Your task to perform on an android device: snooze an email in the gmail app Image 0: 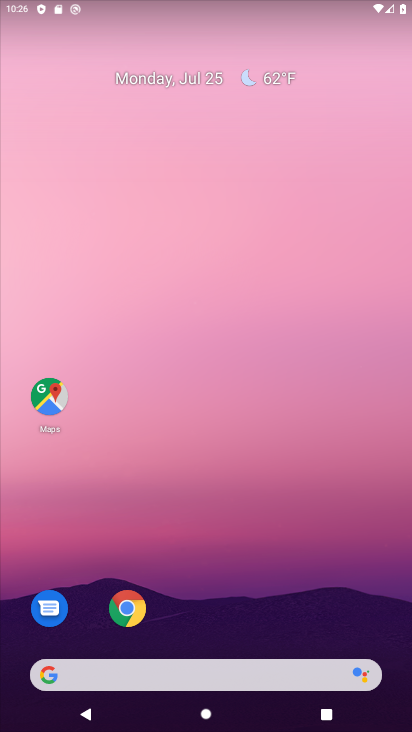
Step 0: drag from (174, 665) to (184, 211)
Your task to perform on an android device: snooze an email in the gmail app Image 1: 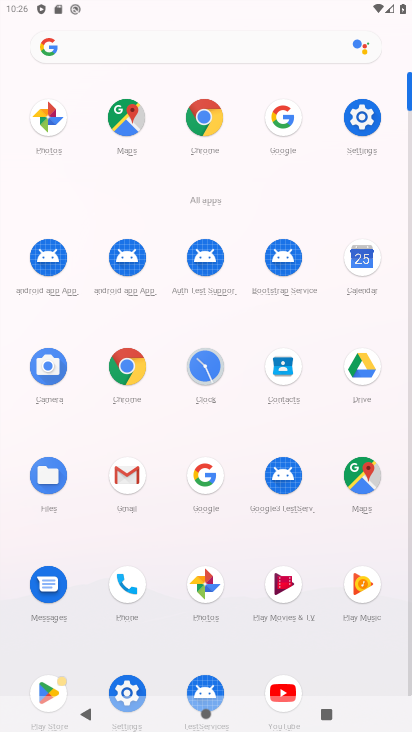
Step 1: click (129, 479)
Your task to perform on an android device: snooze an email in the gmail app Image 2: 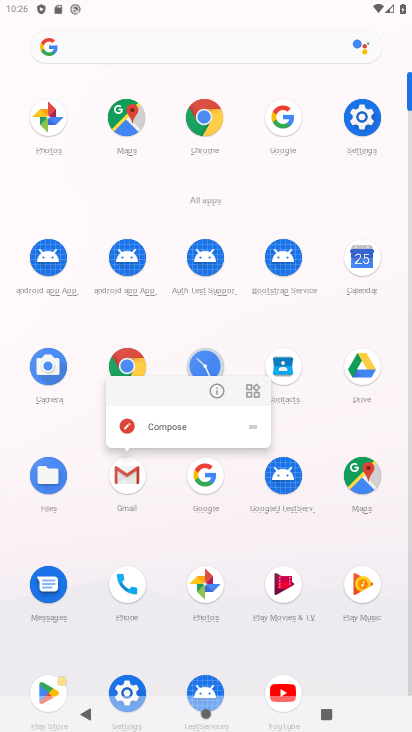
Step 2: click (129, 479)
Your task to perform on an android device: snooze an email in the gmail app Image 3: 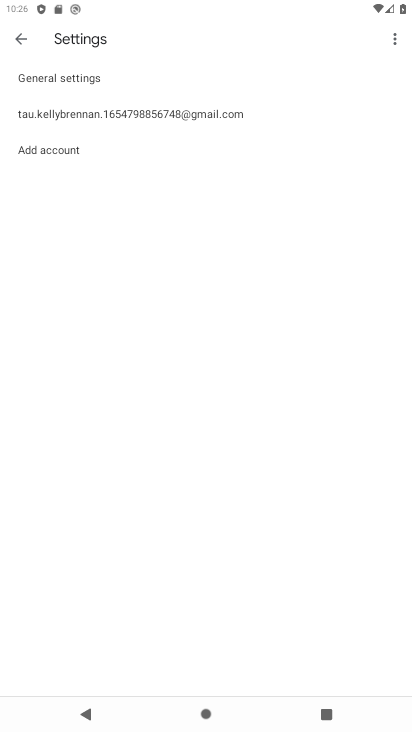
Step 3: click (19, 44)
Your task to perform on an android device: snooze an email in the gmail app Image 4: 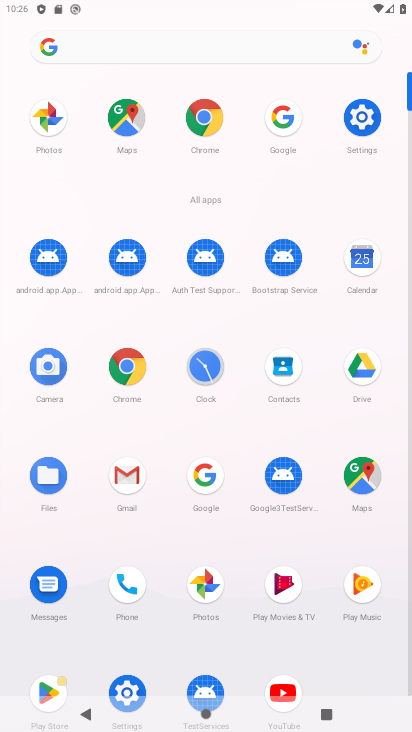
Step 4: click (130, 469)
Your task to perform on an android device: snooze an email in the gmail app Image 5: 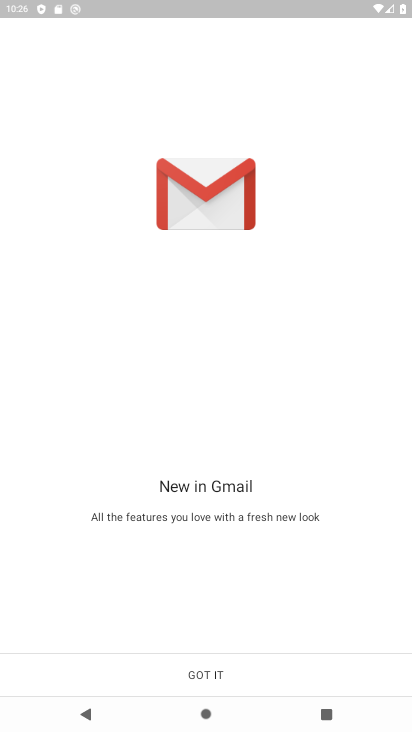
Step 5: click (202, 670)
Your task to perform on an android device: snooze an email in the gmail app Image 6: 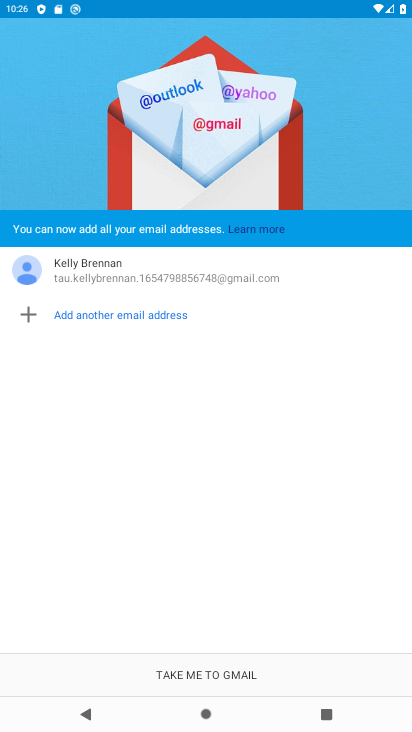
Step 6: click (202, 670)
Your task to perform on an android device: snooze an email in the gmail app Image 7: 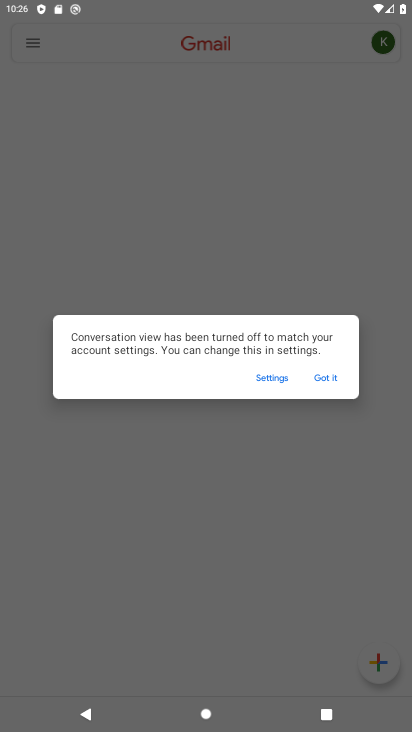
Step 7: click (323, 380)
Your task to perform on an android device: snooze an email in the gmail app Image 8: 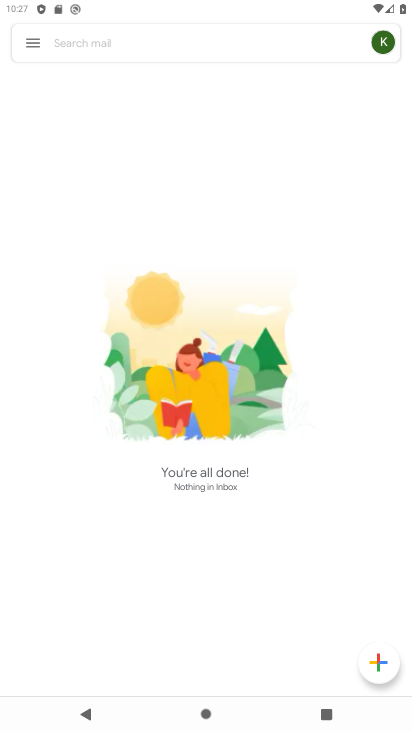
Step 8: click (37, 42)
Your task to perform on an android device: snooze an email in the gmail app Image 9: 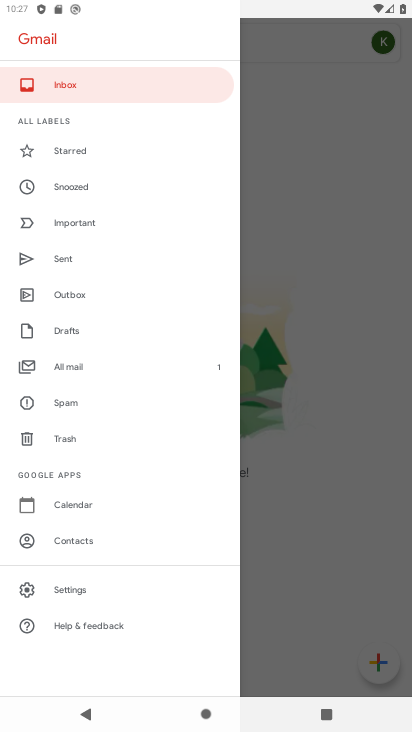
Step 9: click (82, 184)
Your task to perform on an android device: snooze an email in the gmail app Image 10: 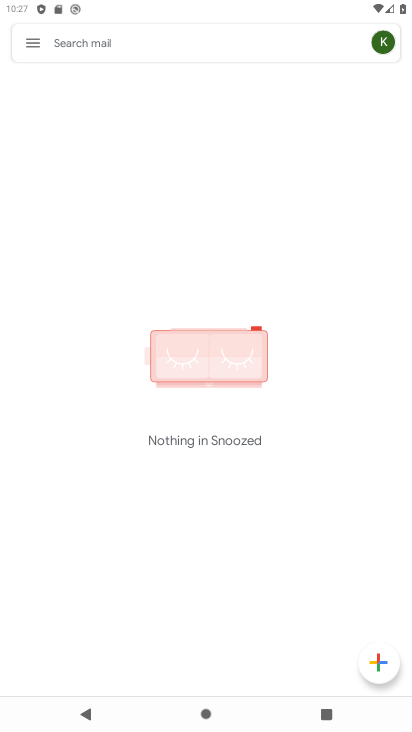
Step 10: task complete